Your task to perform on an android device: check data usage Image 0: 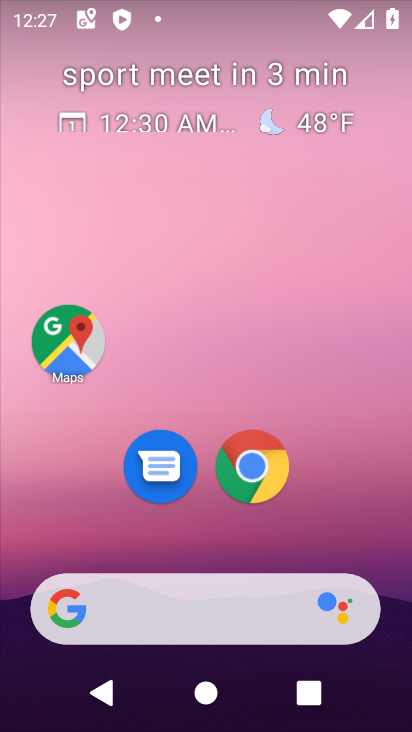
Step 0: drag from (386, 620) to (377, 121)
Your task to perform on an android device: check data usage Image 1: 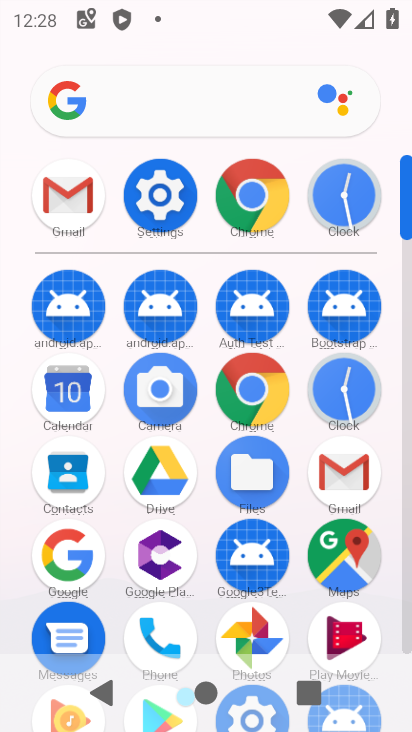
Step 1: click (405, 639)
Your task to perform on an android device: check data usage Image 2: 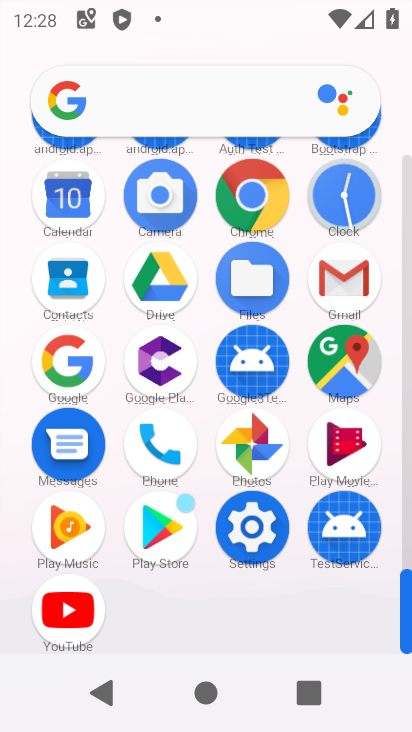
Step 2: click (254, 526)
Your task to perform on an android device: check data usage Image 3: 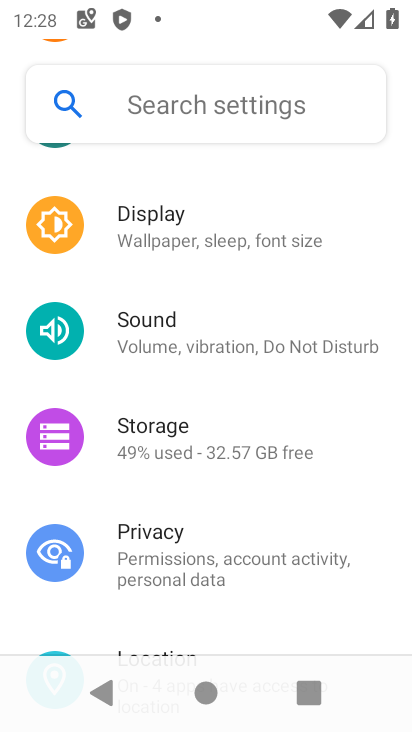
Step 3: drag from (354, 211) to (362, 508)
Your task to perform on an android device: check data usage Image 4: 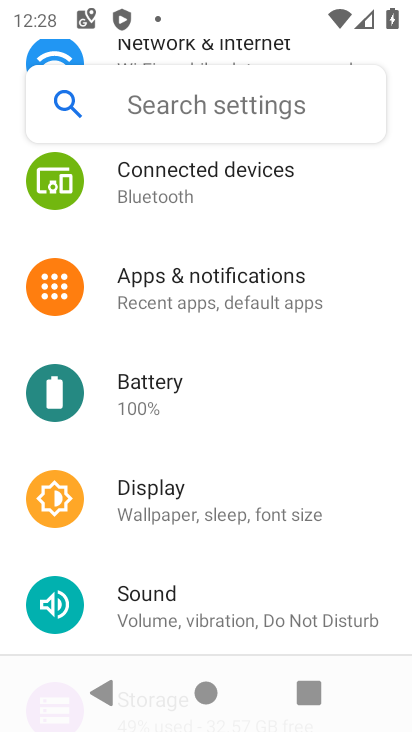
Step 4: drag from (314, 215) to (309, 549)
Your task to perform on an android device: check data usage Image 5: 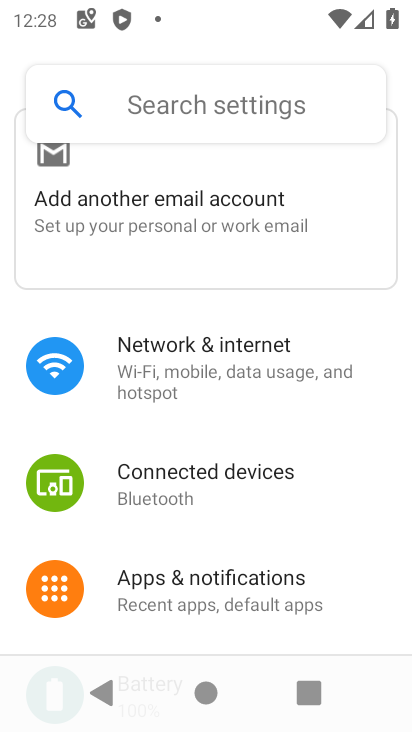
Step 5: click (157, 351)
Your task to perform on an android device: check data usage Image 6: 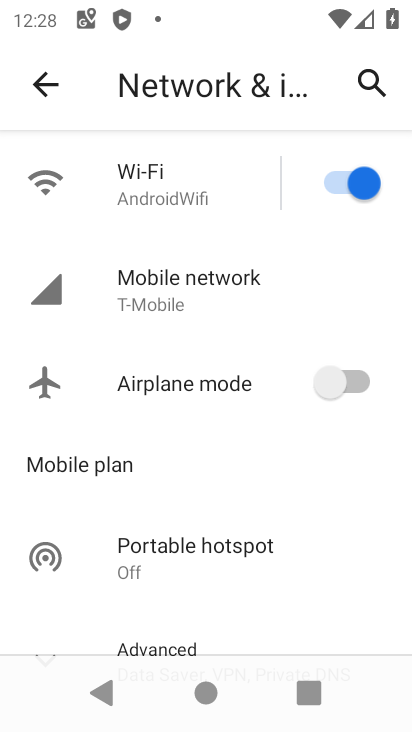
Step 6: click (156, 274)
Your task to perform on an android device: check data usage Image 7: 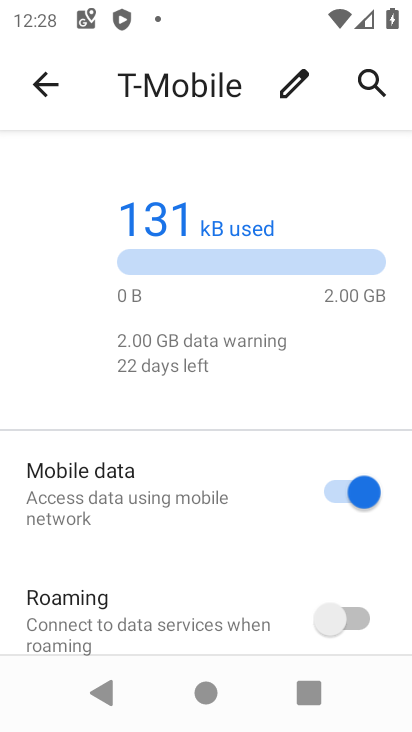
Step 7: task complete